Your task to perform on an android device: toggle data saver in the chrome app Image 0: 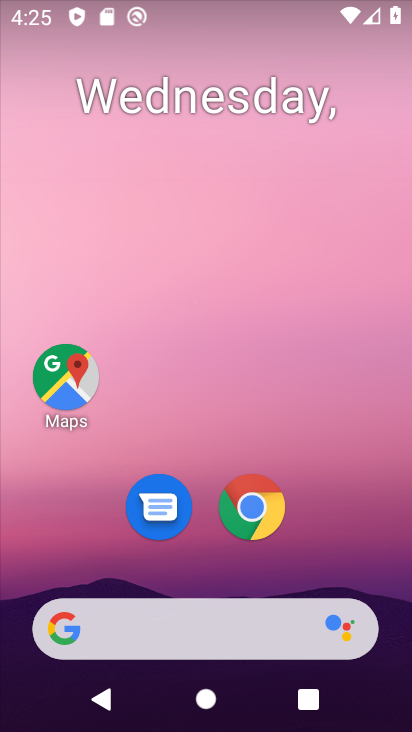
Step 0: drag from (377, 533) to (296, 21)
Your task to perform on an android device: toggle data saver in the chrome app Image 1: 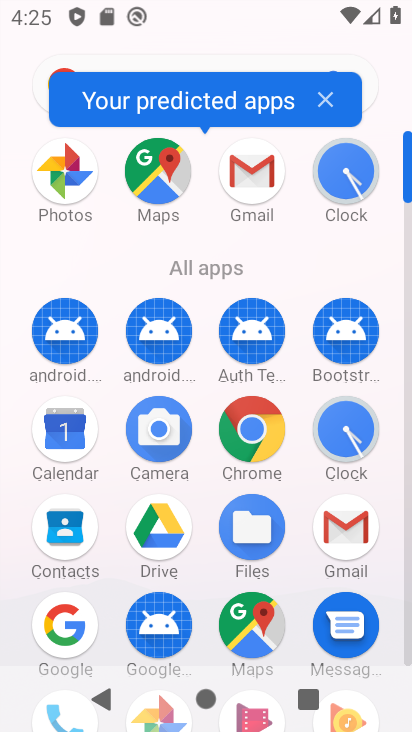
Step 1: click (247, 429)
Your task to perform on an android device: toggle data saver in the chrome app Image 2: 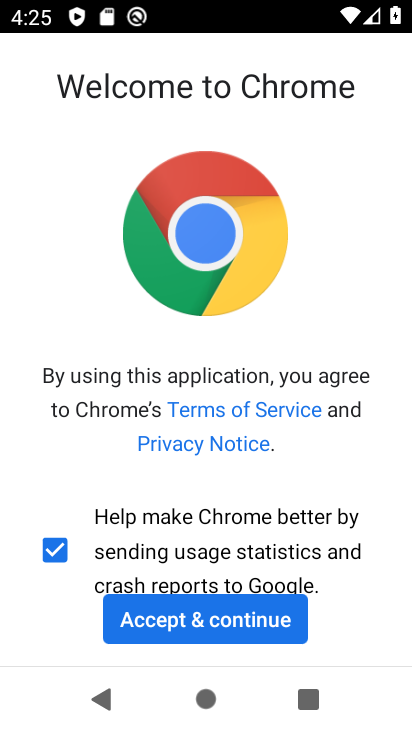
Step 2: click (238, 608)
Your task to perform on an android device: toggle data saver in the chrome app Image 3: 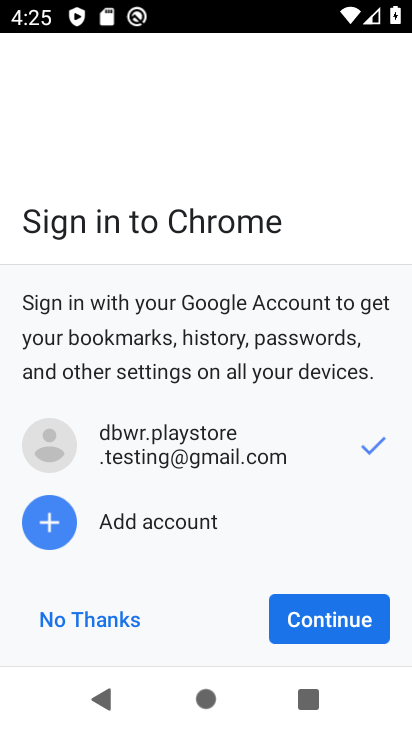
Step 3: click (116, 622)
Your task to perform on an android device: toggle data saver in the chrome app Image 4: 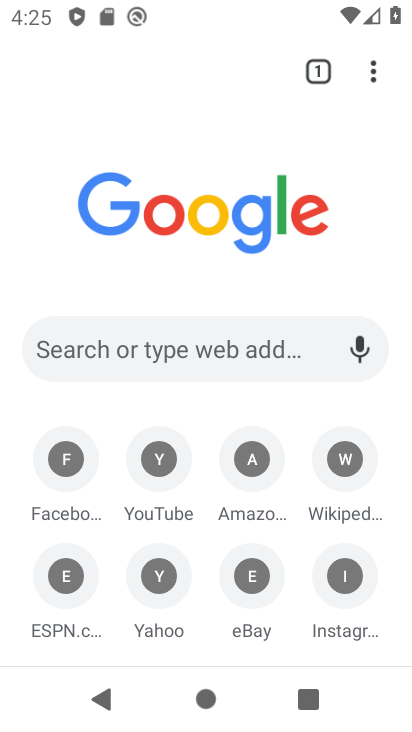
Step 4: drag from (379, 77) to (184, 500)
Your task to perform on an android device: toggle data saver in the chrome app Image 5: 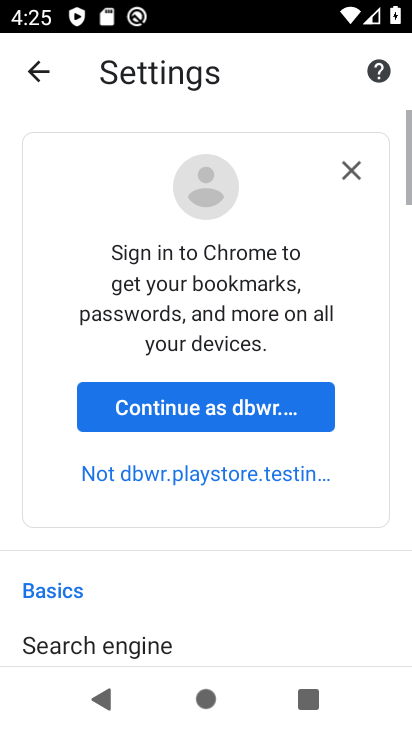
Step 5: drag from (196, 611) to (152, 127)
Your task to perform on an android device: toggle data saver in the chrome app Image 6: 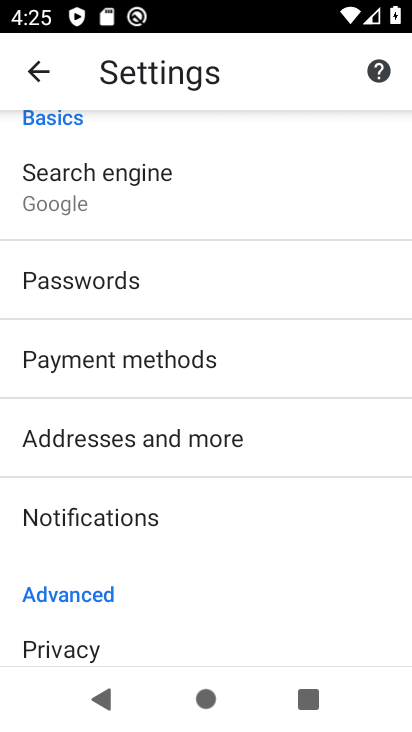
Step 6: drag from (203, 583) to (199, 158)
Your task to perform on an android device: toggle data saver in the chrome app Image 7: 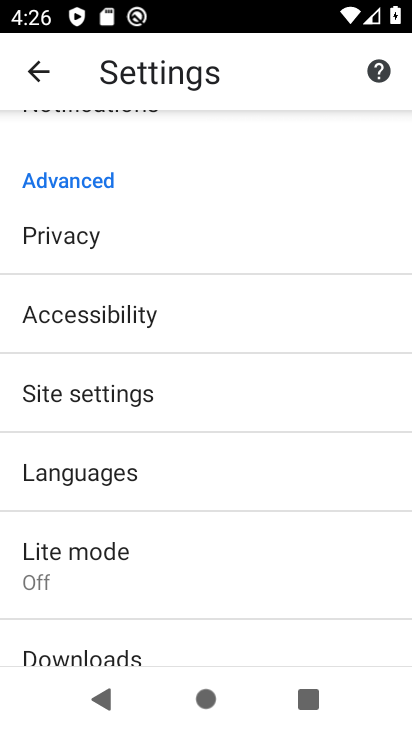
Step 7: click (145, 567)
Your task to perform on an android device: toggle data saver in the chrome app Image 8: 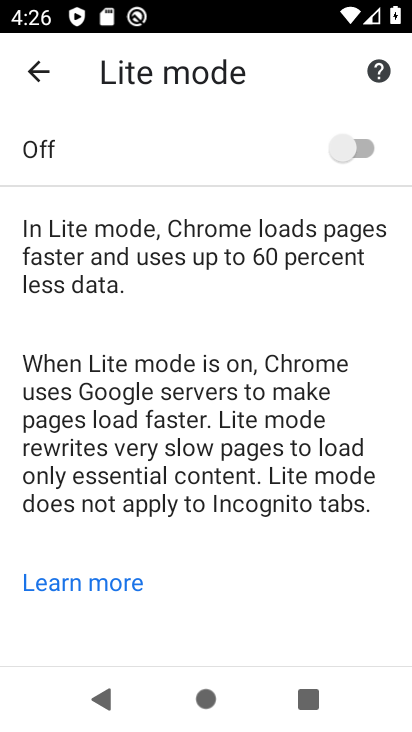
Step 8: click (365, 146)
Your task to perform on an android device: toggle data saver in the chrome app Image 9: 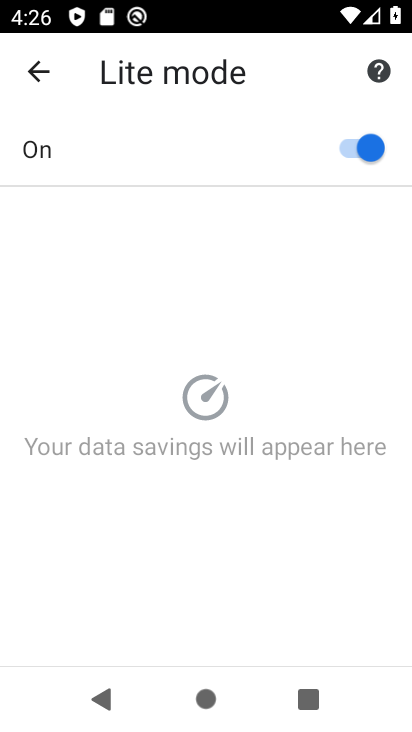
Step 9: task complete